Your task to perform on an android device: Open location settings Image 0: 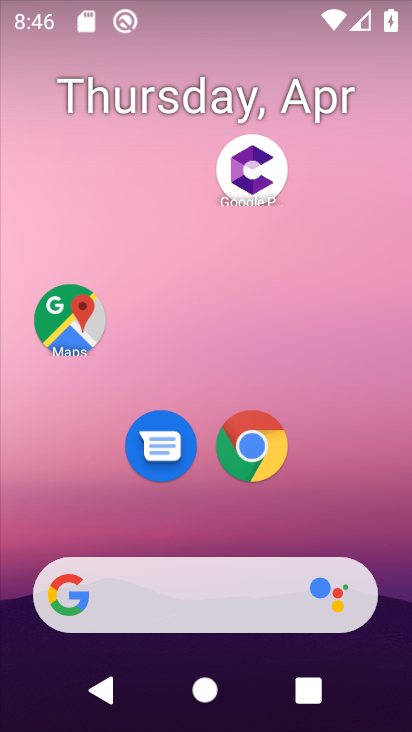
Step 0: task impossible